Your task to perform on an android device: refresh tabs in the chrome app Image 0: 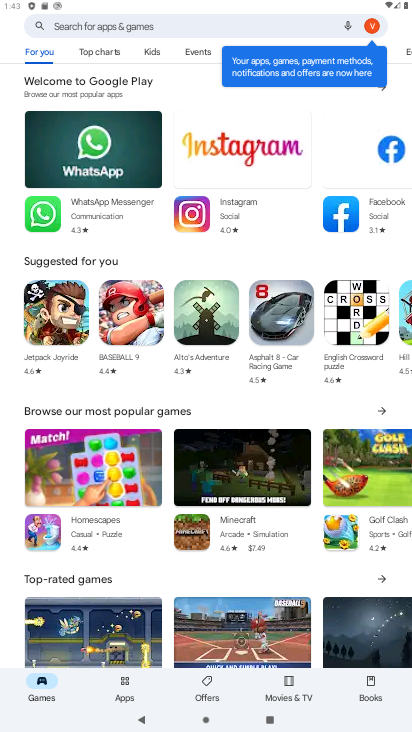
Step 0: press home button
Your task to perform on an android device: refresh tabs in the chrome app Image 1: 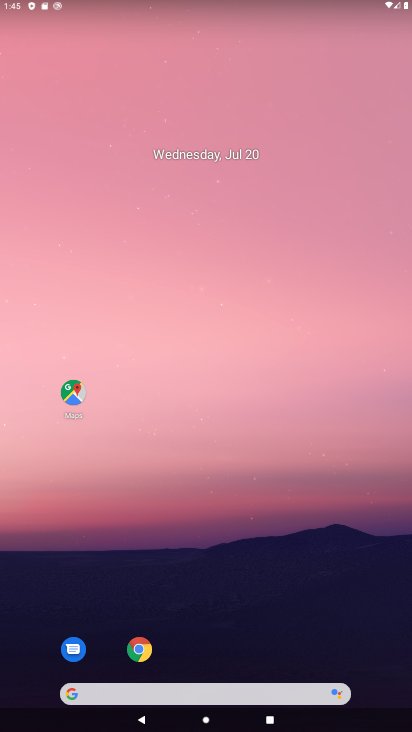
Step 1: click (141, 656)
Your task to perform on an android device: refresh tabs in the chrome app Image 2: 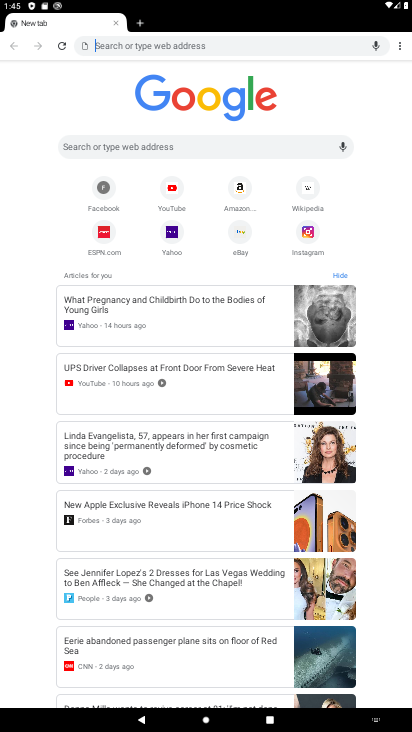
Step 2: task complete